Your task to perform on an android device: empty trash in google photos Image 0: 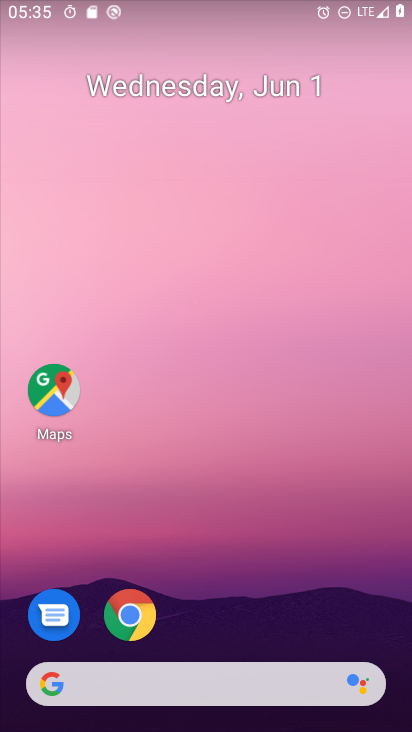
Step 0: drag from (308, 681) to (279, 20)
Your task to perform on an android device: empty trash in google photos Image 1: 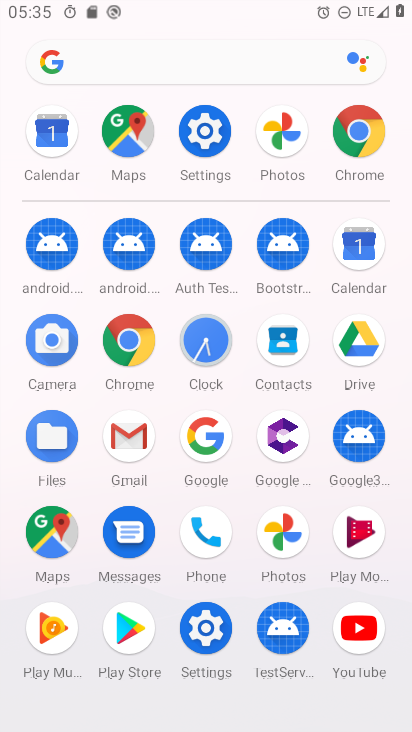
Step 1: click (291, 542)
Your task to perform on an android device: empty trash in google photos Image 2: 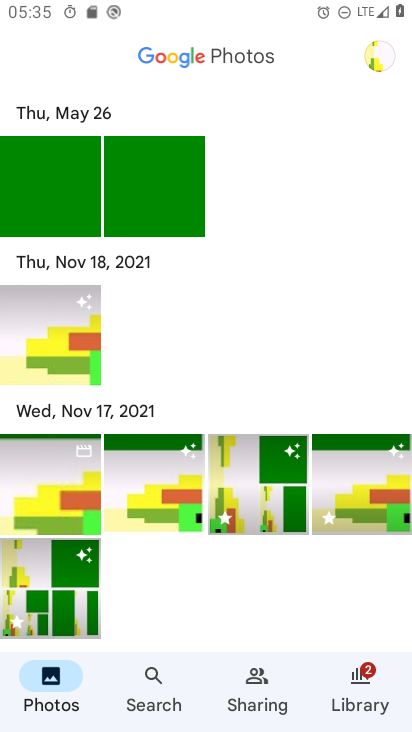
Step 2: click (377, 57)
Your task to perform on an android device: empty trash in google photos Image 3: 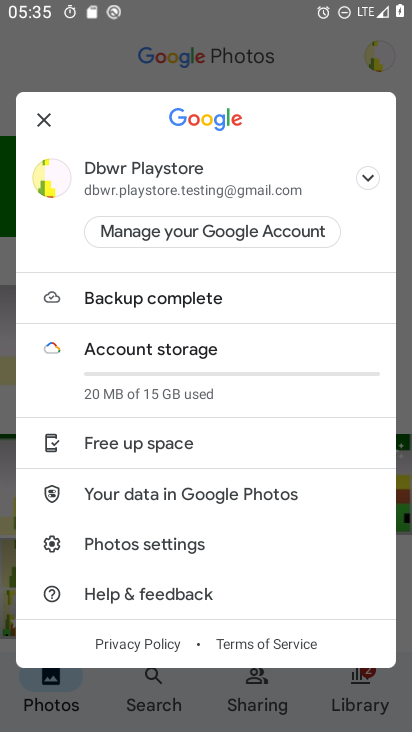
Step 3: click (40, 115)
Your task to perform on an android device: empty trash in google photos Image 4: 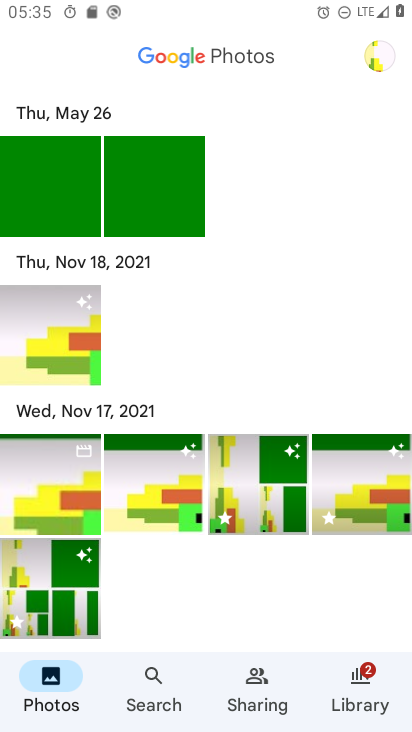
Step 4: click (360, 676)
Your task to perform on an android device: empty trash in google photos Image 5: 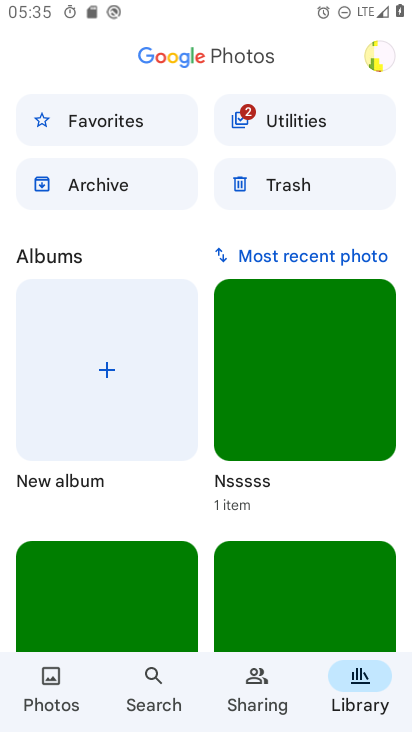
Step 5: click (257, 169)
Your task to perform on an android device: empty trash in google photos Image 6: 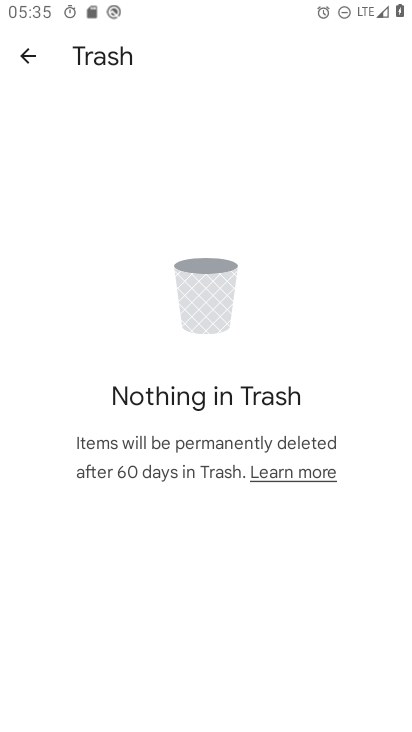
Step 6: task complete